Your task to perform on an android device: turn notification dots off Image 0: 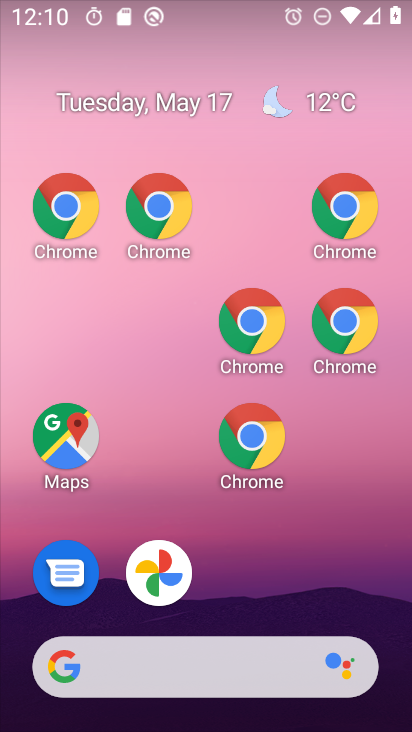
Step 0: drag from (325, 718) to (272, 290)
Your task to perform on an android device: turn notification dots off Image 1: 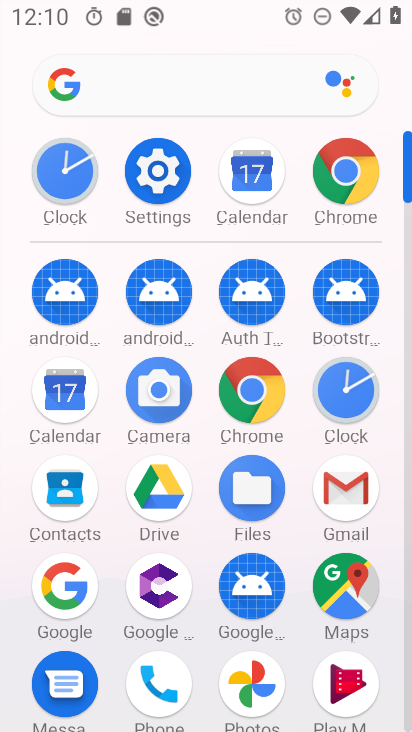
Step 1: click (157, 195)
Your task to perform on an android device: turn notification dots off Image 2: 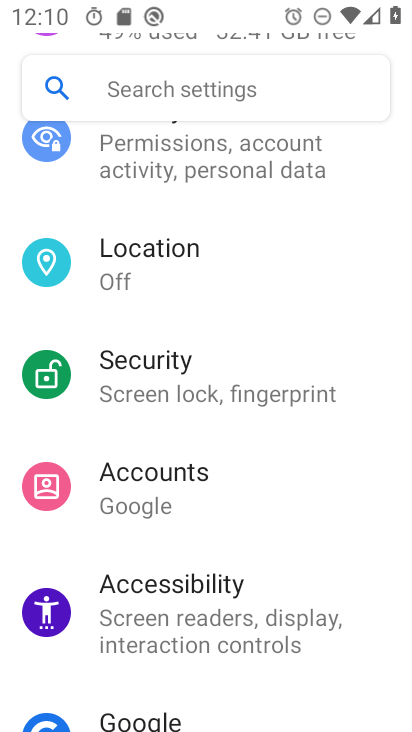
Step 2: drag from (156, 294) to (162, 489)
Your task to perform on an android device: turn notification dots off Image 3: 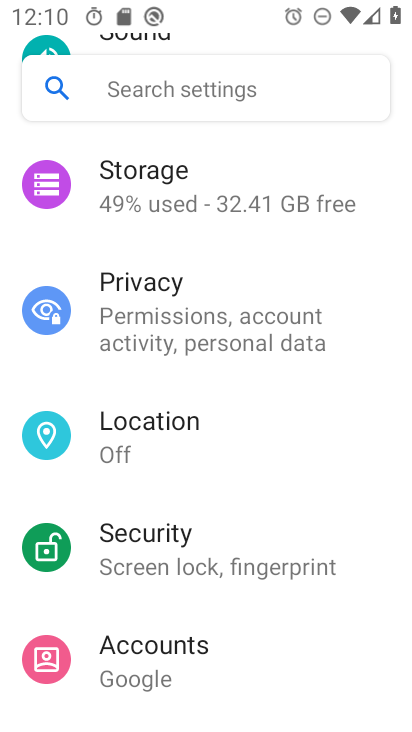
Step 3: drag from (209, 147) to (161, 540)
Your task to perform on an android device: turn notification dots off Image 4: 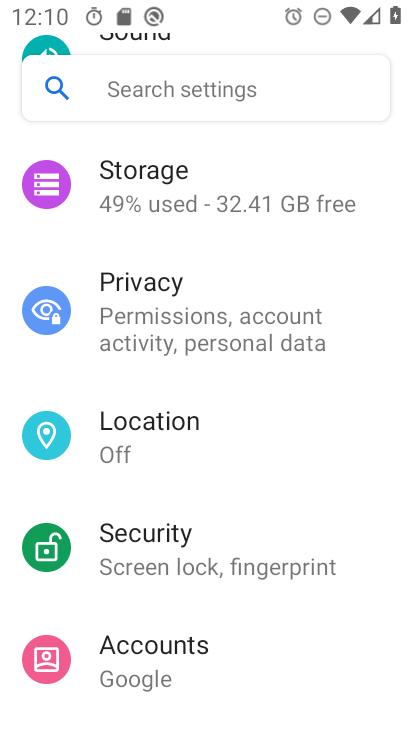
Step 4: drag from (155, 242) to (157, 684)
Your task to perform on an android device: turn notification dots off Image 5: 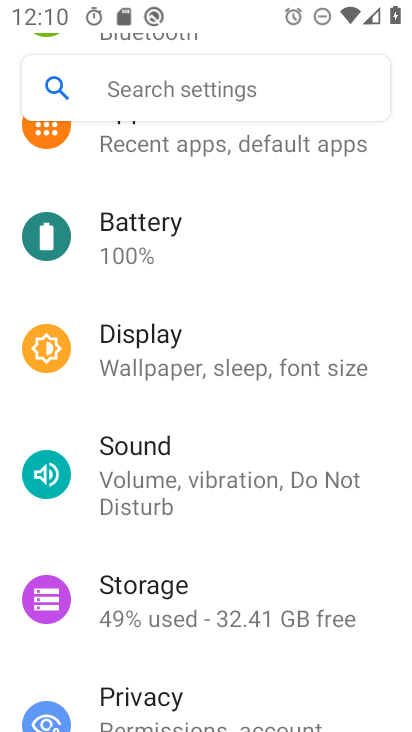
Step 5: drag from (144, 314) to (189, 611)
Your task to perform on an android device: turn notification dots off Image 6: 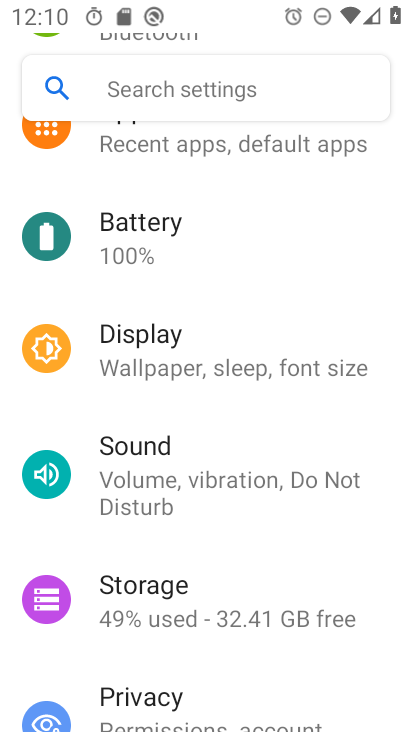
Step 6: drag from (219, 364) to (279, 688)
Your task to perform on an android device: turn notification dots off Image 7: 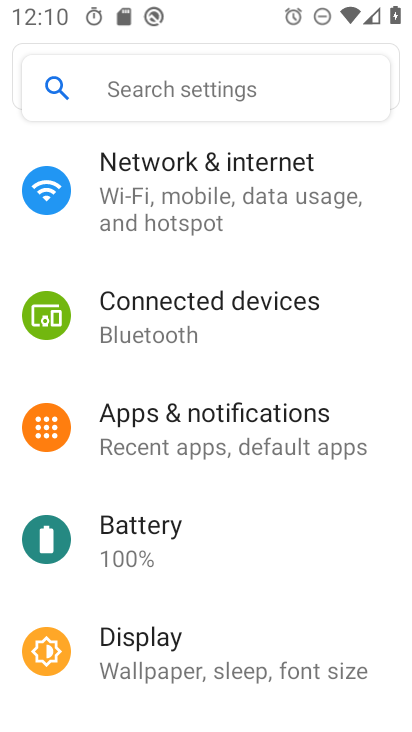
Step 7: drag from (216, 269) to (203, 709)
Your task to perform on an android device: turn notification dots off Image 8: 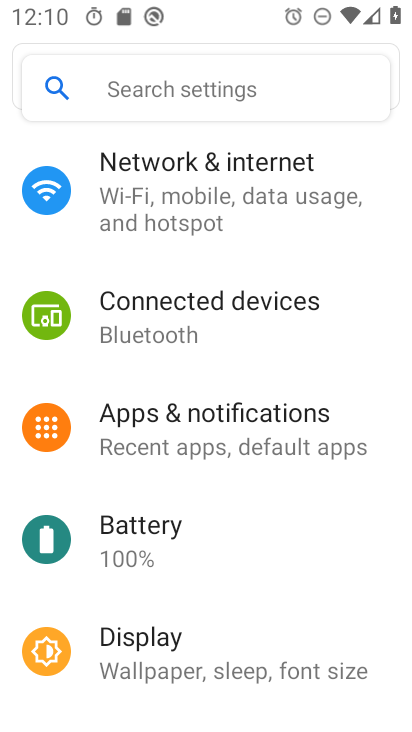
Step 8: click (213, 436)
Your task to perform on an android device: turn notification dots off Image 9: 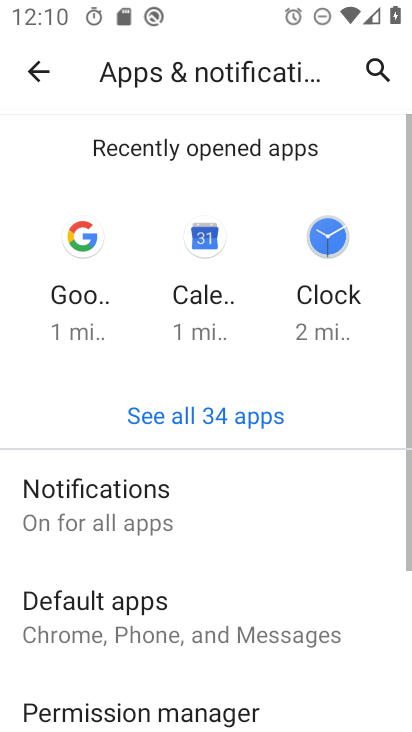
Step 9: drag from (199, 593) to (167, 60)
Your task to perform on an android device: turn notification dots off Image 10: 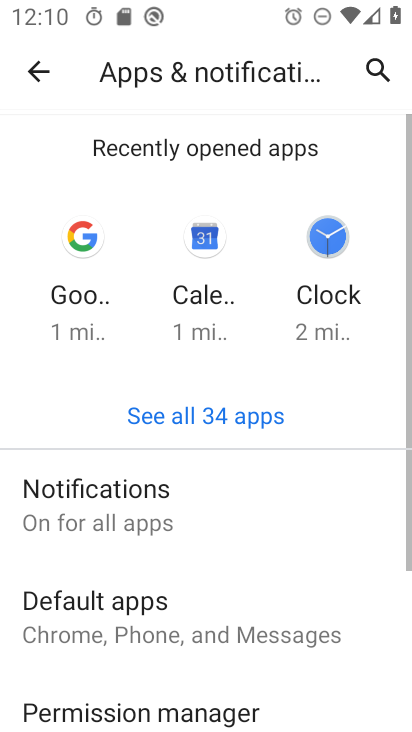
Step 10: drag from (226, 560) to (222, 130)
Your task to perform on an android device: turn notification dots off Image 11: 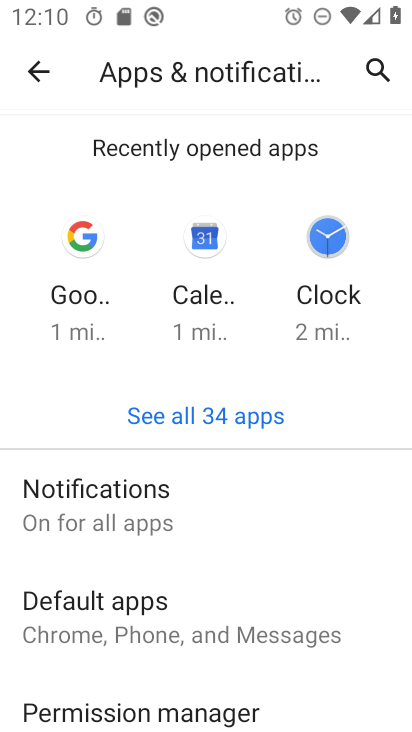
Step 11: drag from (209, 539) to (229, 30)
Your task to perform on an android device: turn notification dots off Image 12: 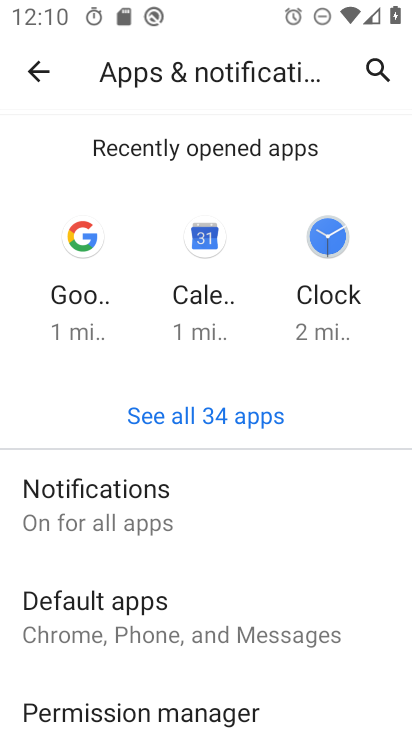
Step 12: click (67, 495)
Your task to perform on an android device: turn notification dots off Image 13: 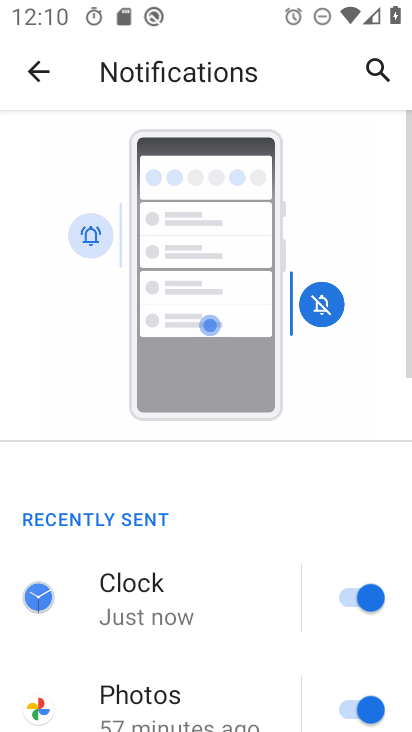
Step 13: drag from (212, 594) to (223, 190)
Your task to perform on an android device: turn notification dots off Image 14: 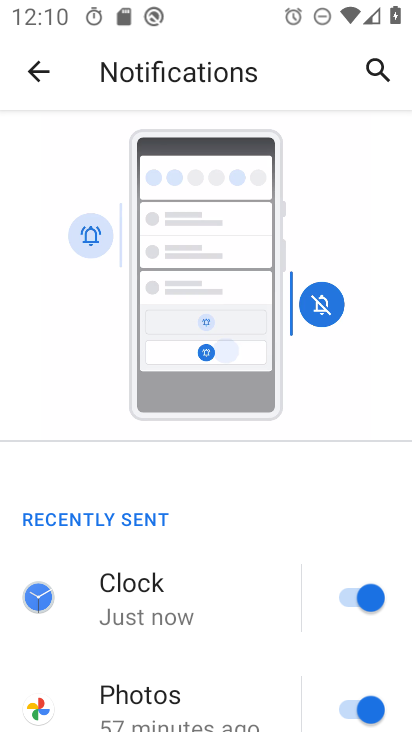
Step 14: drag from (251, 477) to (273, 173)
Your task to perform on an android device: turn notification dots off Image 15: 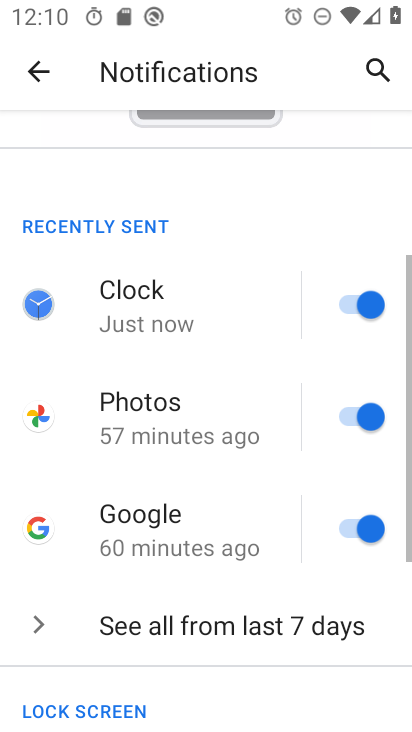
Step 15: drag from (356, 571) to (411, 119)
Your task to perform on an android device: turn notification dots off Image 16: 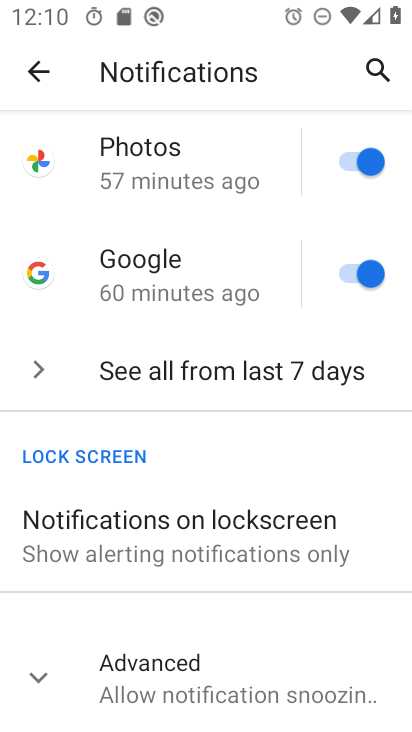
Step 16: click (168, 680)
Your task to perform on an android device: turn notification dots off Image 17: 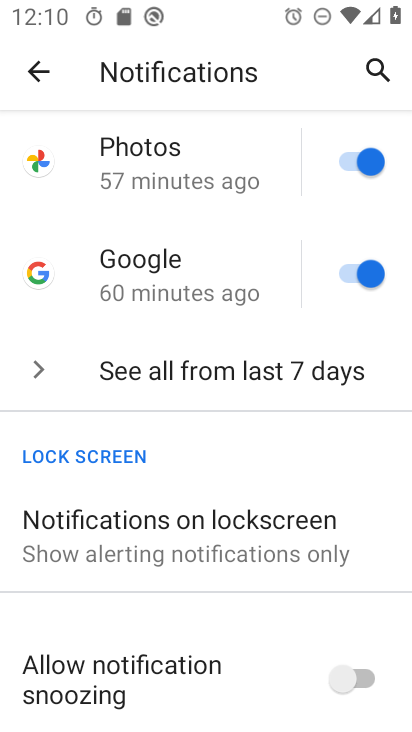
Step 17: drag from (307, 647) to (304, 287)
Your task to perform on an android device: turn notification dots off Image 18: 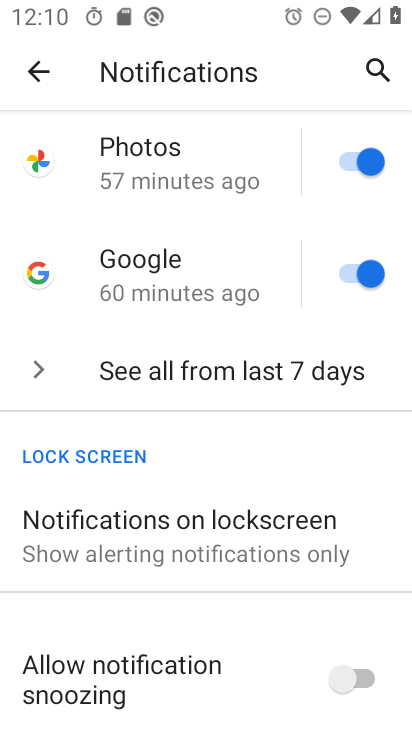
Step 18: drag from (297, 559) to (338, 79)
Your task to perform on an android device: turn notification dots off Image 19: 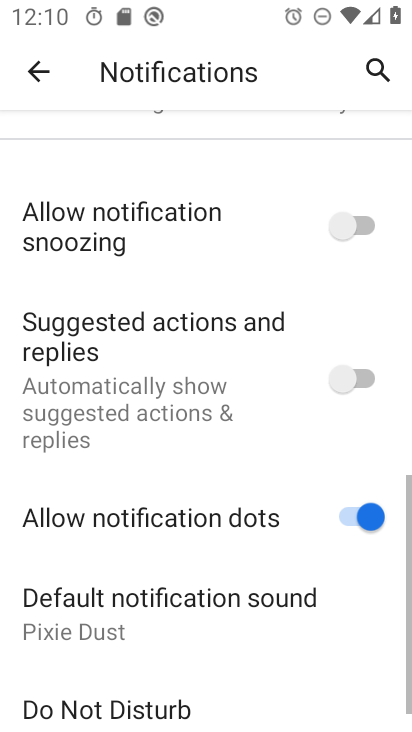
Step 19: drag from (241, 649) to (257, 117)
Your task to perform on an android device: turn notification dots off Image 20: 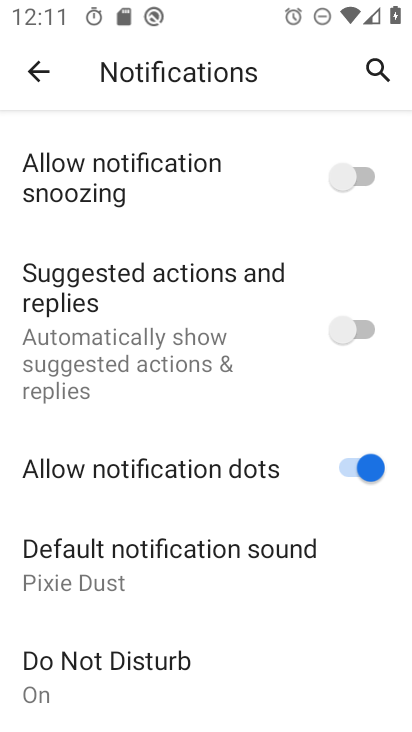
Step 20: click (364, 466)
Your task to perform on an android device: turn notification dots off Image 21: 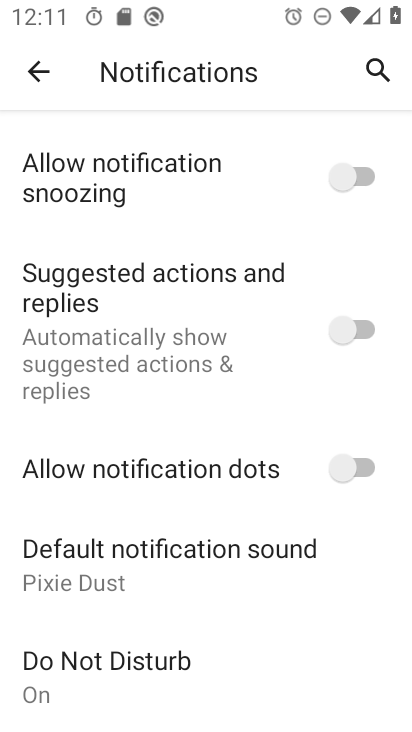
Step 21: task complete